Your task to perform on an android device: Search for a 3D printer on aliexpress. Image 0: 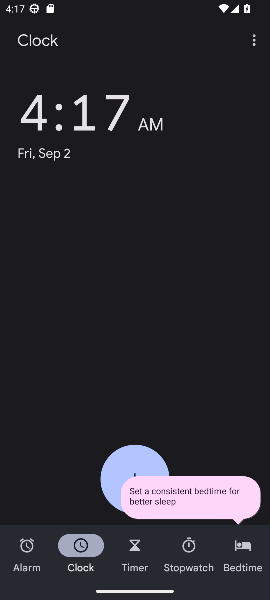
Step 0: press home button
Your task to perform on an android device: Search for a 3D printer on aliexpress. Image 1: 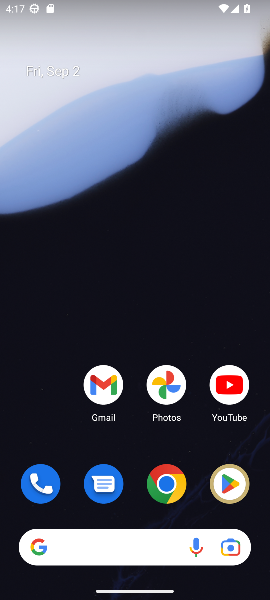
Step 1: click (160, 478)
Your task to perform on an android device: Search for a 3D printer on aliexpress. Image 2: 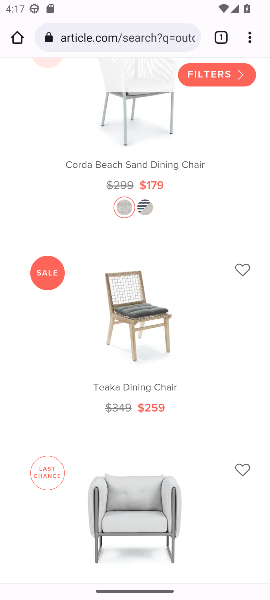
Step 2: click (166, 36)
Your task to perform on an android device: Search for a 3D printer on aliexpress. Image 3: 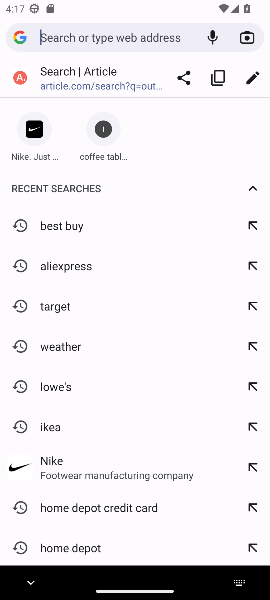
Step 3: type "aliexpress"
Your task to perform on an android device: Search for a 3D printer on aliexpress. Image 4: 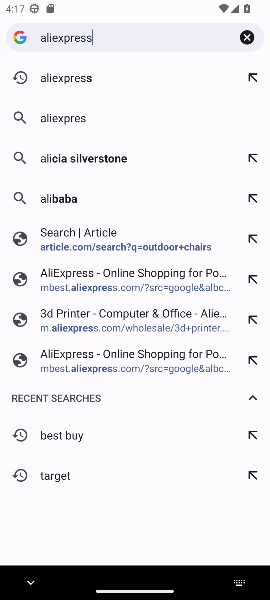
Step 4: press enter
Your task to perform on an android device: Search for a 3D printer on aliexpress. Image 5: 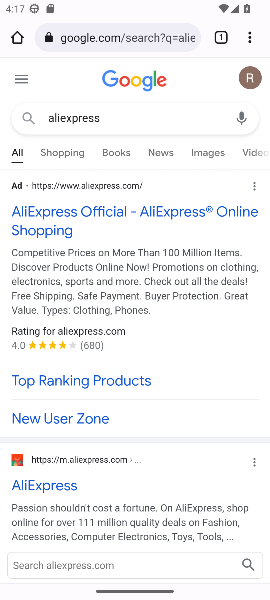
Step 5: click (122, 211)
Your task to perform on an android device: Search for a 3D printer on aliexpress. Image 6: 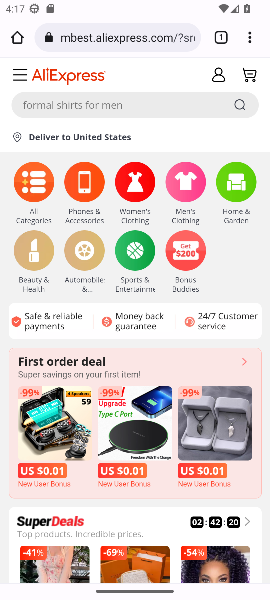
Step 6: click (143, 103)
Your task to perform on an android device: Search for a 3D printer on aliexpress. Image 7: 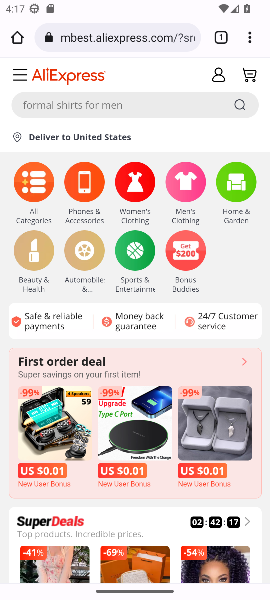
Step 7: click (236, 100)
Your task to perform on an android device: Search for a 3D printer on aliexpress. Image 8: 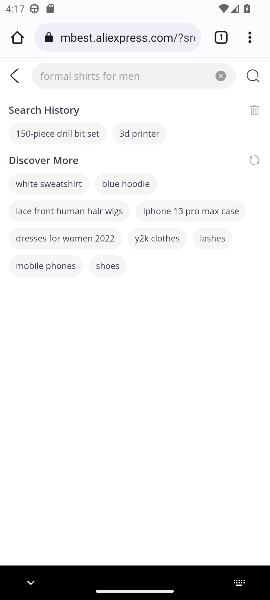
Step 8: type "3D printer "
Your task to perform on an android device: Search for a 3D printer on aliexpress. Image 9: 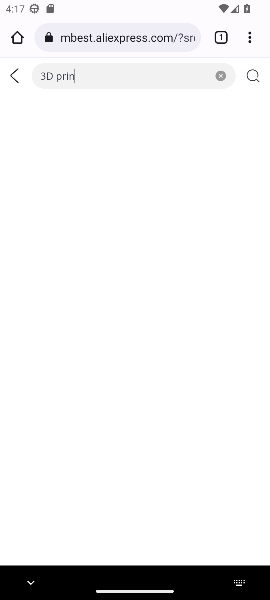
Step 9: press enter
Your task to perform on an android device: Search for a 3D printer on aliexpress. Image 10: 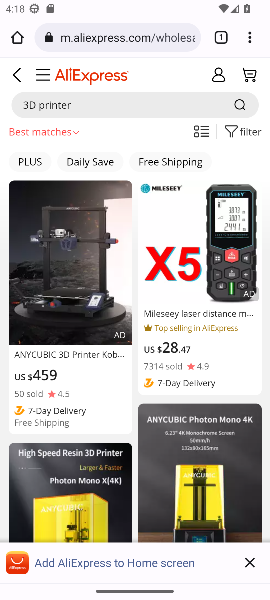
Step 10: task complete